Your task to perform on an android device: check the backup settings in the google photos Image 0: 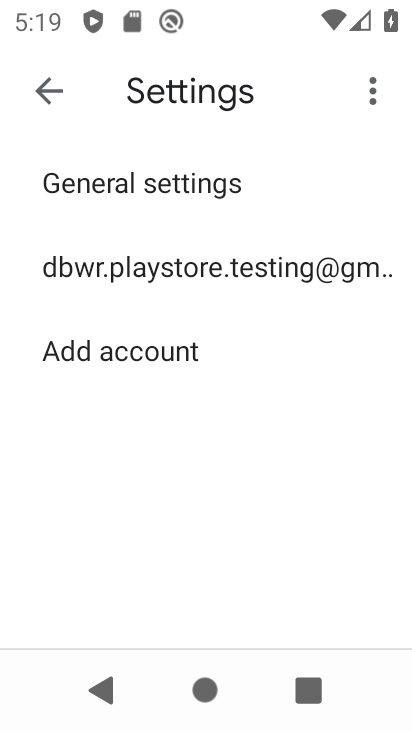
Step 0: press home button
Your task to perform on an android device: check the backup settings in the google photos Image 1: 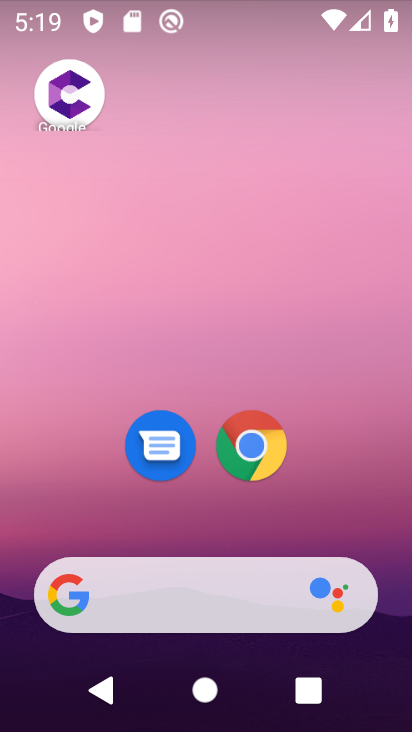
Step 1: drag from (342, 501) to (318, 88)
Your task to perform on an android device: check the backup settings in the google photos Image 2: 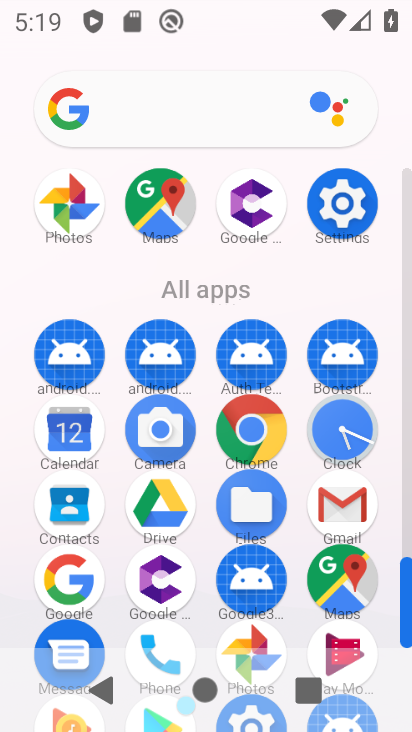
Step 2: drag from (305, 272) to (297, 56)
Your task to perform on an android device: check the backup settings in the google photos Image 3: 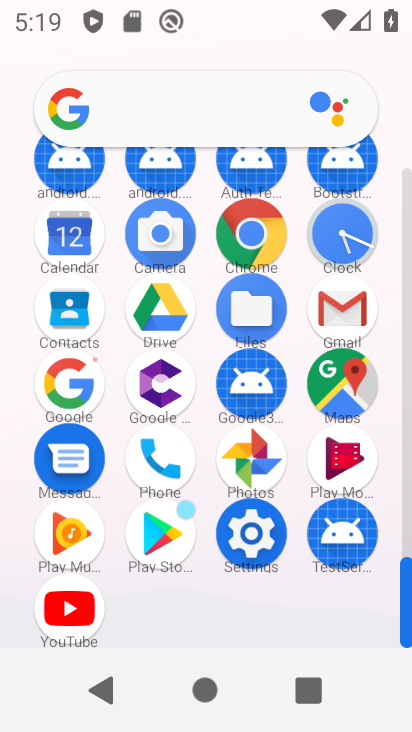
Step 3: click (256, 466)
Your task to perform on an android device: check the backup settings in the google photos Image 4: 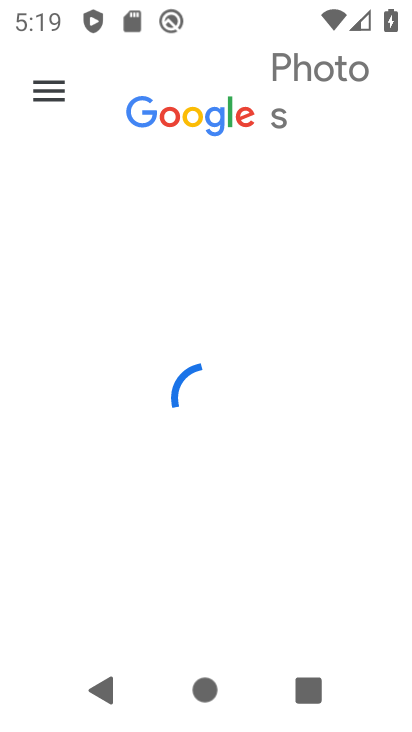
Step 4: click (57, 92)
Your task to perform on an android device: check the backup settings in the google photos Image 5: 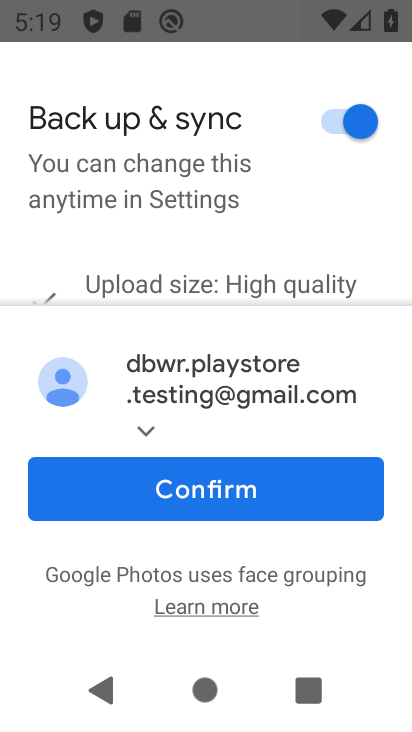
Step 5: click (188, 486)
Your task to perform on an android device: check the backup settings in the google photos Image 6: 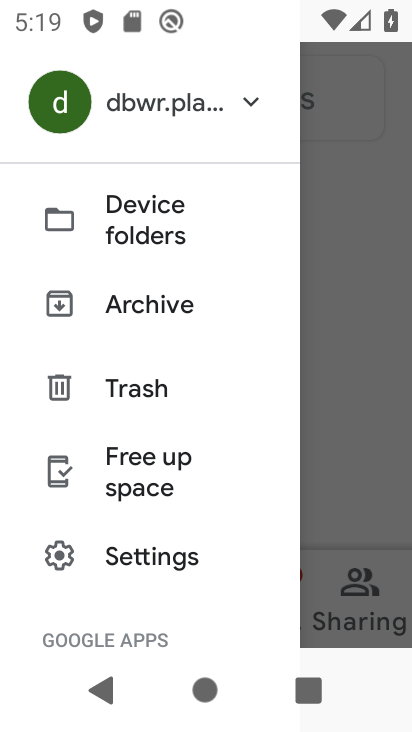
Step 6: click (169, 552)
Your task to perform on an android device: check the backup settings in the google photos Image 7: 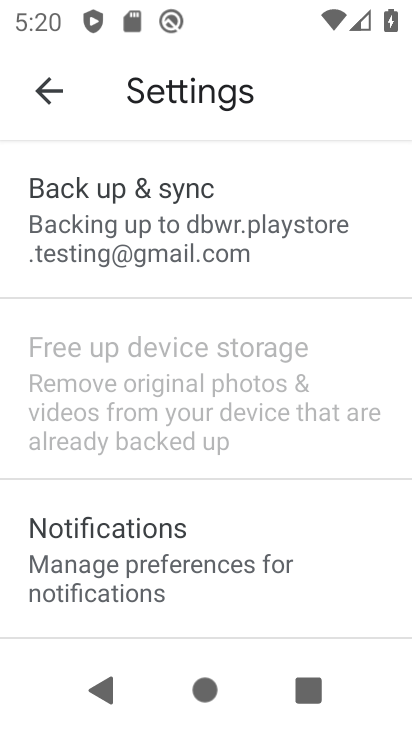
Step 7: click (142, 216)
Your task to perform on an android device: check the backup settings in the google photos Image 8: 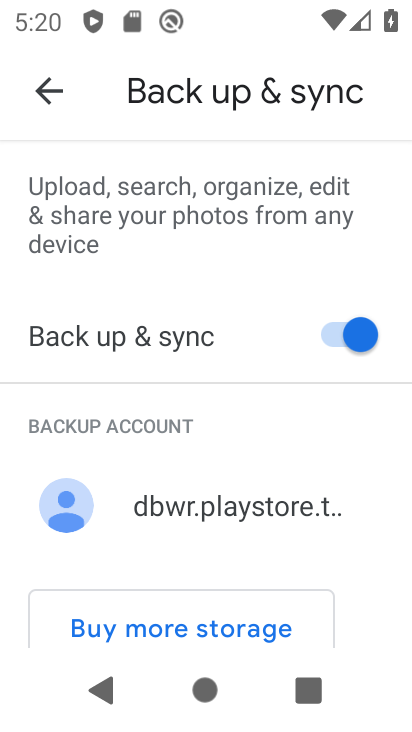
Step 8: task complete